Your task to perform on an android device: turn on data saver in the chrome app Image 0: 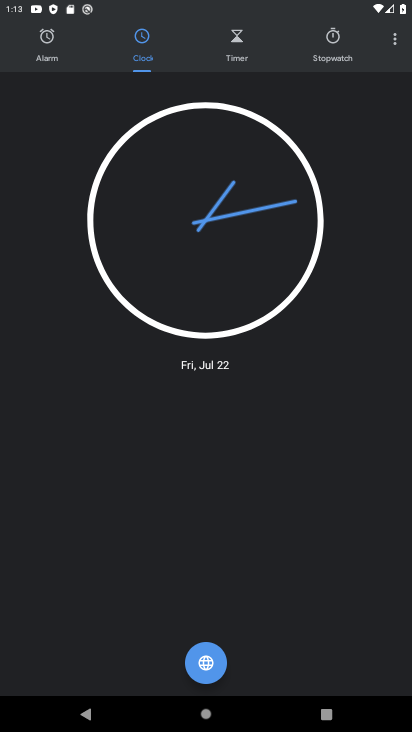
Step 0: press home button
Your task to perform on an android device: turn on data saver in the chrome app Image 1: 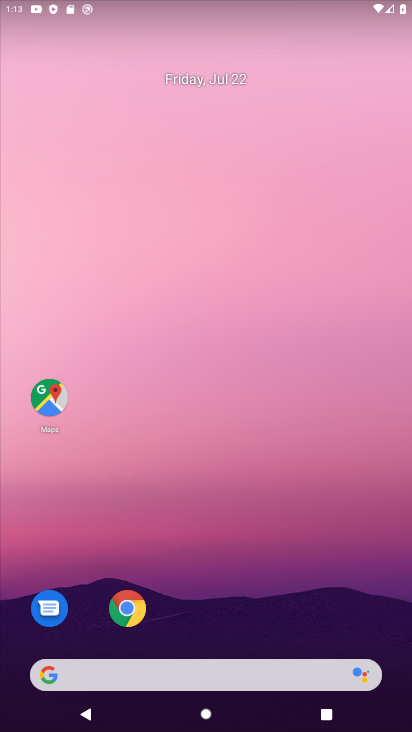
Step 1: click (136, 602)
Your task to perform on an android device: turn on data saver in the chrome app Image 2: 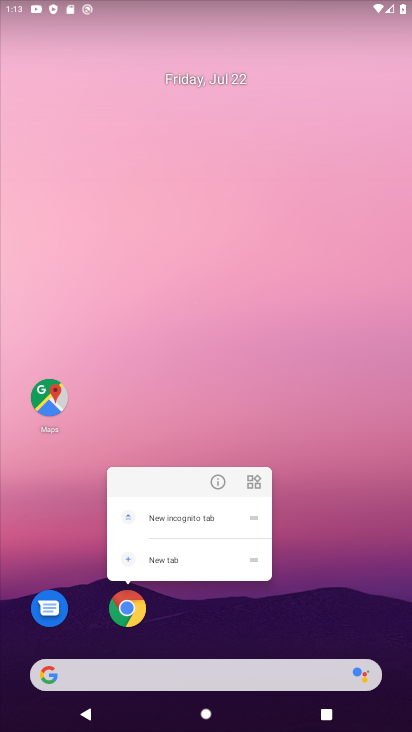
Step 2: click (127, 607)
Your task to perform on an android device: turn on data saver in the chrome app Image 3: 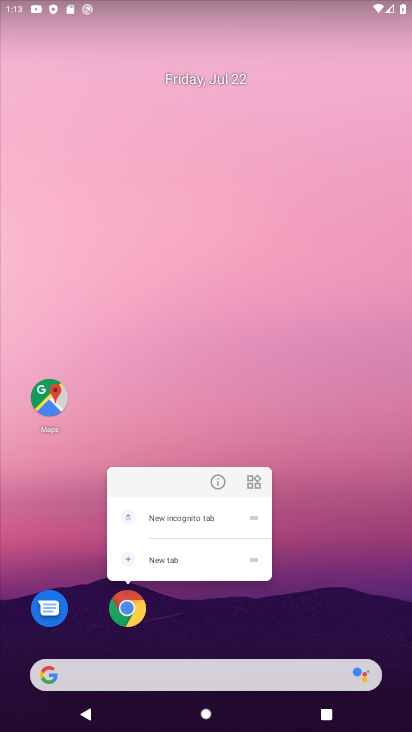
Step 3: click (127, 607)
Your task to perform on an android device: turn on data saver in the chrome app Image 4: 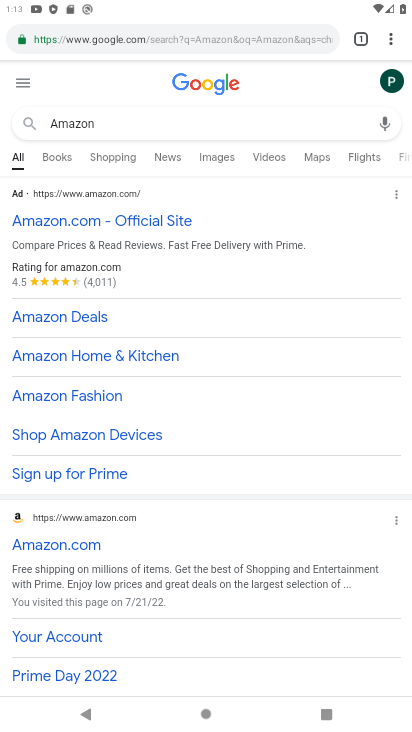
Step 4: click (387, 44)
Your task to perform on an android device: turn on data saver in the chrome app Image 5: 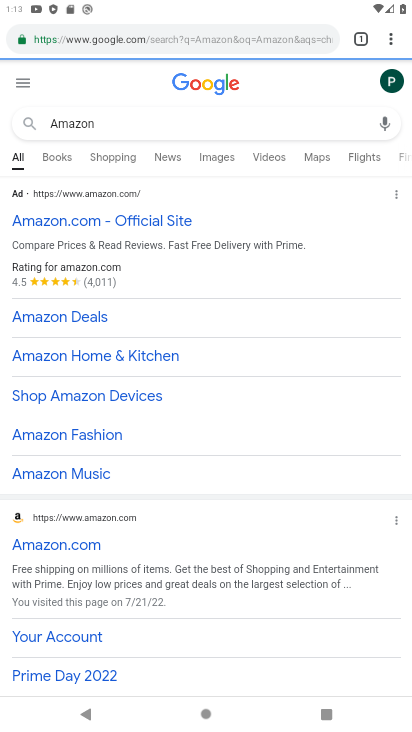
Step 5: click (389, 38)
Your task to perform on an android device: turn on data saver in the chrome app Image 6: 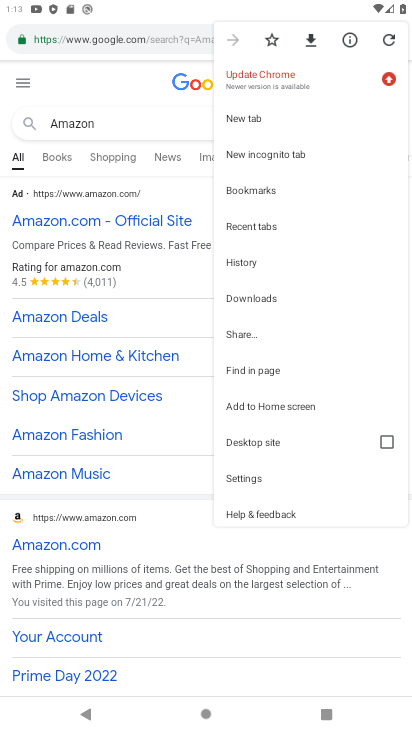
Step 6: click (246, 475)
Your task to perform on an android device: turn on data saver in the chrome app Image 7: 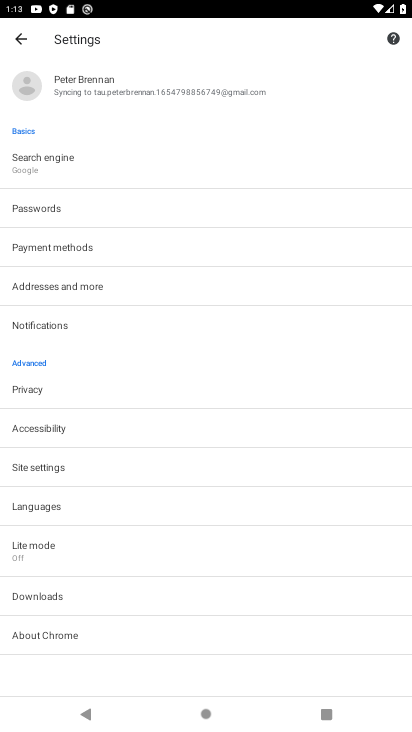
Step 7: click (23, 543)
Your task to perform on an android device: turn on data saver in the chrome app Image 8: 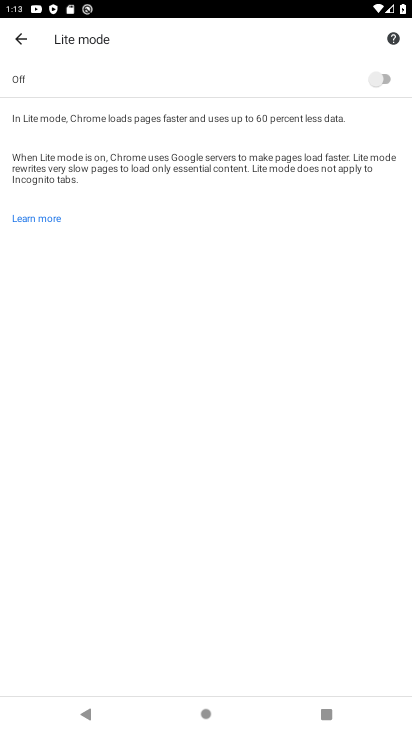
Step 8: click (382, 79)
Your task to perform on an android device: turn on data saver in the chrome app Image 9: 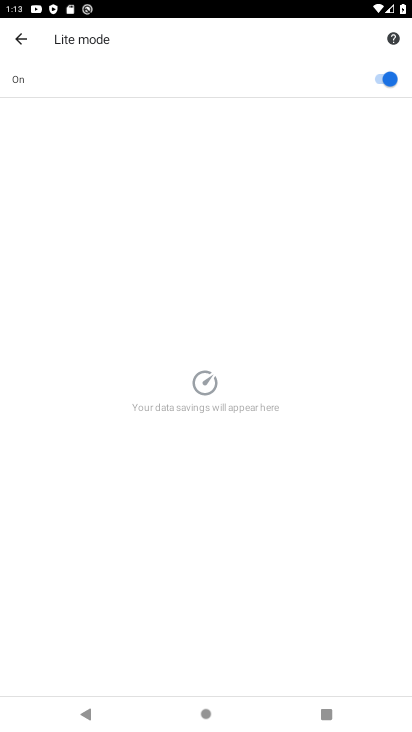
Step 9: task complete